Your task to perform on an android device: check battery use Image 0: 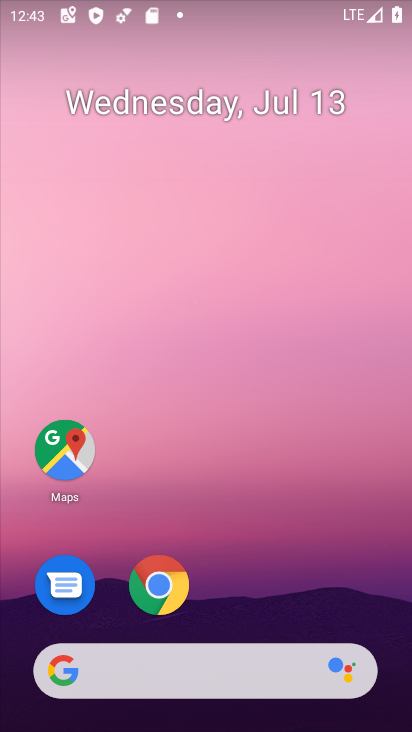
Step 0: drag from (207, 544) to (197, 181)
Your task to perform on an android device: check battery use Image 1: 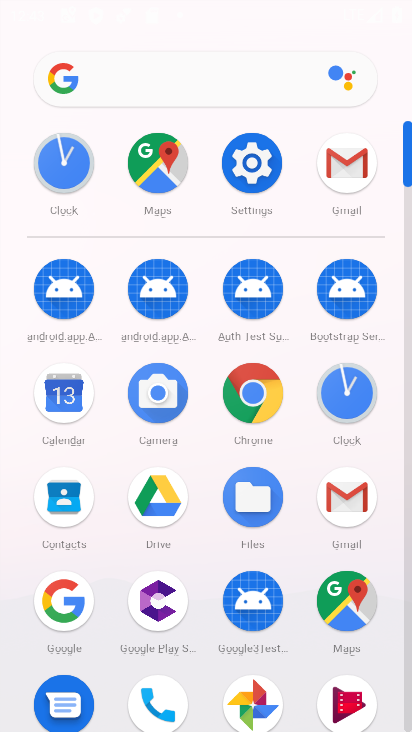
Step 1: click (252, 166)
Your task to perform on an android device: check battery use Image 2: 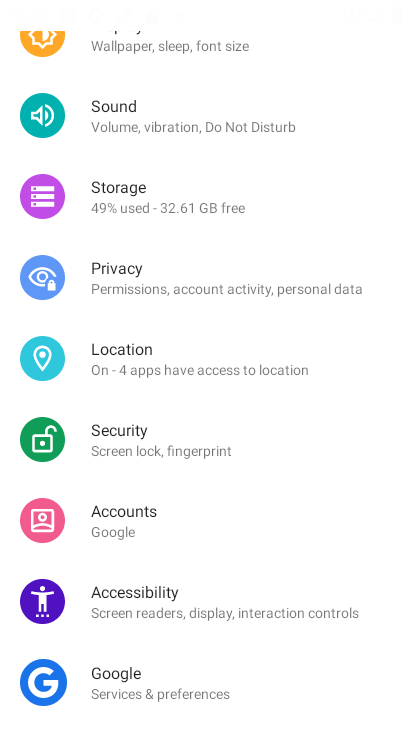
Step 2: drag from (186, 527) to (197, 288)
Your task to perform on an android device: check battery use Image 3: 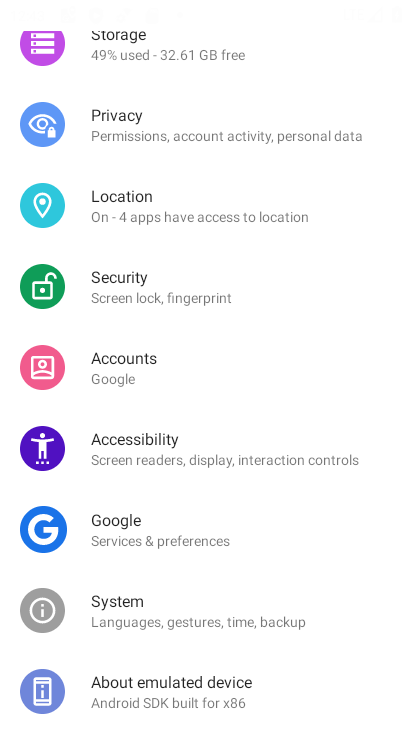
Step 3: drag from (195, 305) to (173, 528)
Your task to perform on an android device: check battery use Image 4: 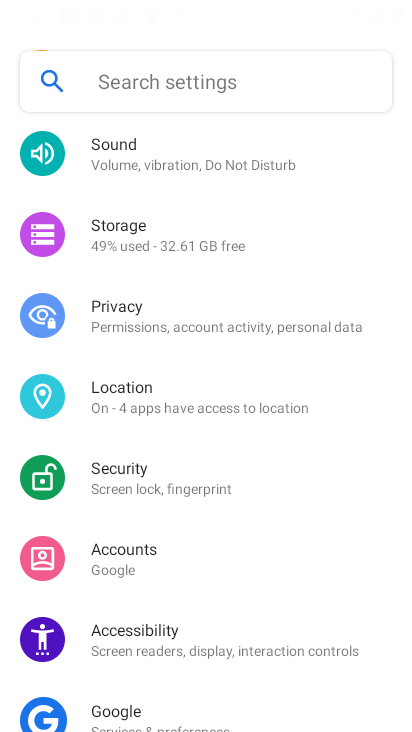
Step 4: drag from (202, 276) to (136, 617)
Your task to perform on an android device: check battery use Image 5: 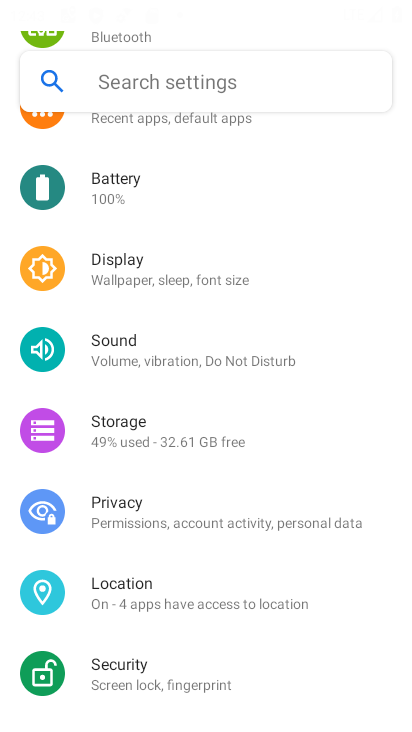
Step 5: click (119, 188)
Your task to perform on an android device: check battery use Image 6: 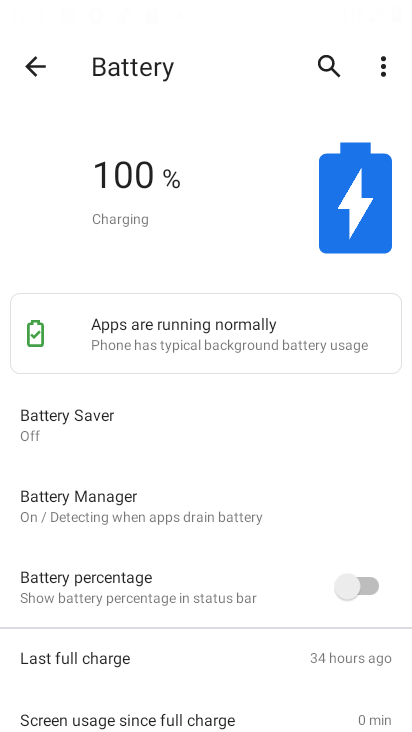
Step 6: task complete